Your task to perform on an android device: open a bookmark in the chrome app Image 0: 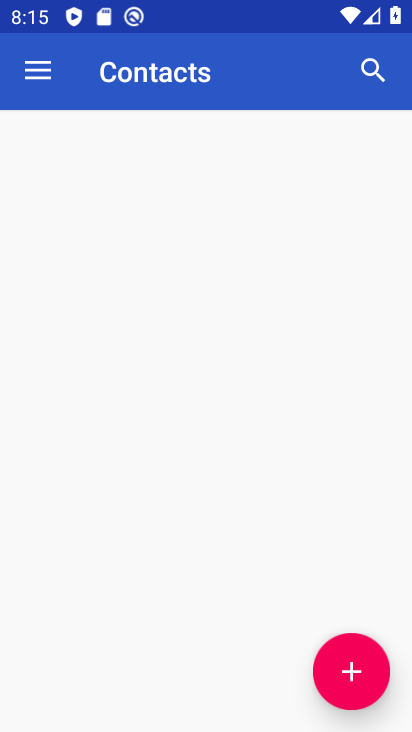
Step 0: press home button
Your task to perform on an android device: open a bookmark in the chrome app Image 1: 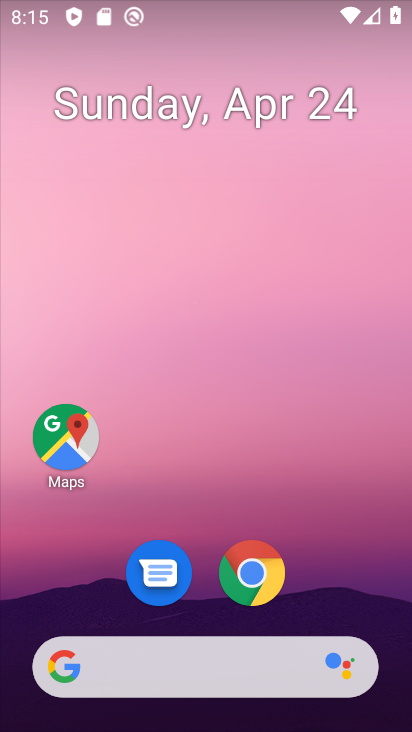
Step 1: click (266, 576)
Your task to perform on an android device: open a bookmark in the chrome app Image 2: 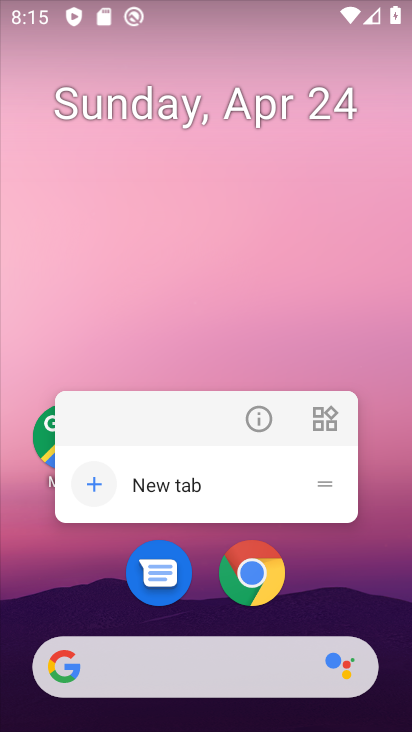
Step 2: click (266, 576)
Your task to perform on an android device: open a bookmark in the chrome app Image 3: 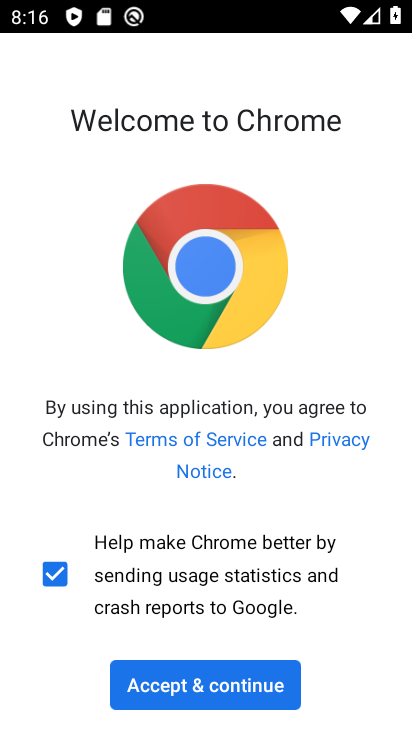
Step 3: click (183, 685)
Your task to perform on an android device: open a bookmark in the chrome app Image 4: 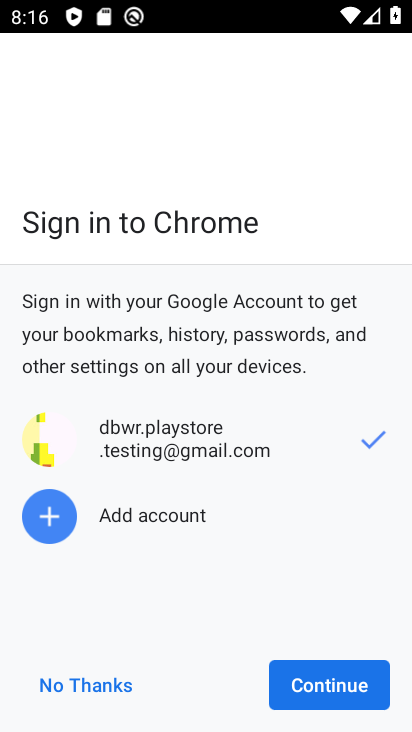
Step 4: click (353, 690)
Your task to perform on an android device: open a bookmark in the chrome app Image 5: 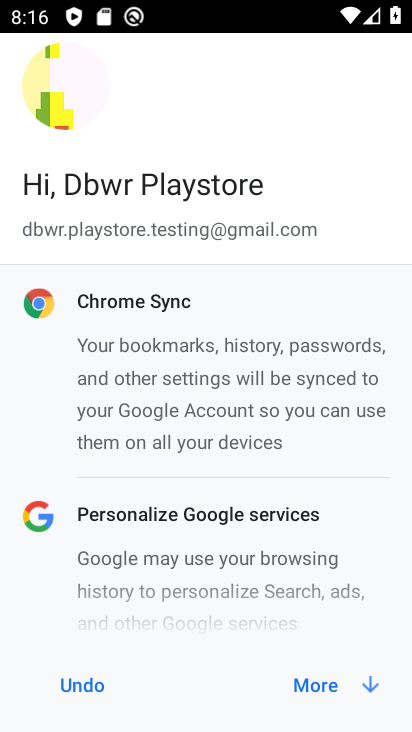
Step 5: click (353, 690)
Your task to perform on an android device: open a bookmark in the chrome app Image 6: 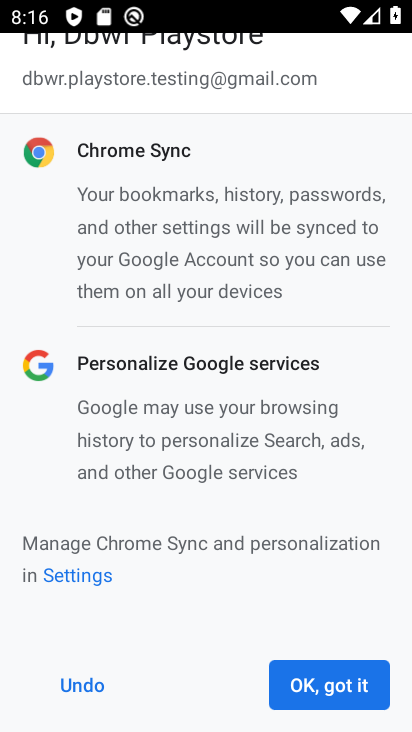
Step 6: click (348, 688)
Your task to perform on an android device: open a bookmark in the chrome app Image 7: 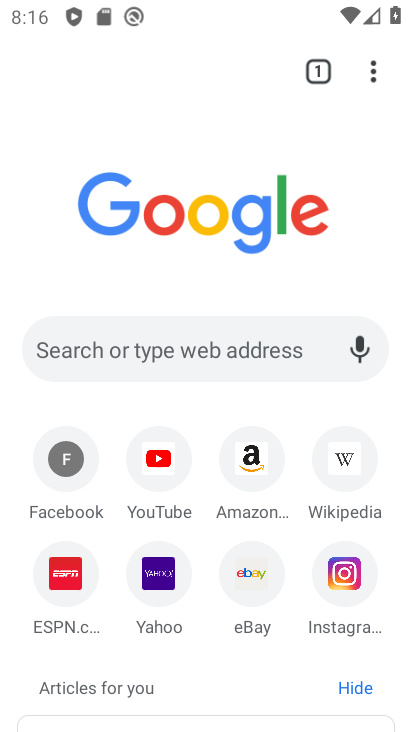
Step 7: task complete